Your task to perform on an android device: visit the assistant section in the google photos Image 0: 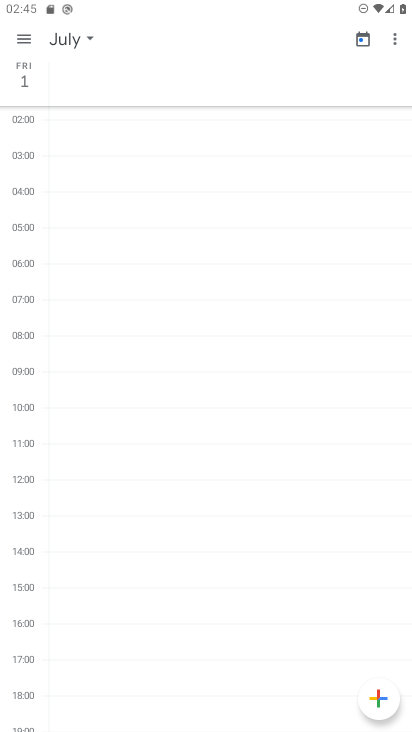
Step 0: press home button
Your task to perform on an android device: visit the assistant section in the google photos Image 1: 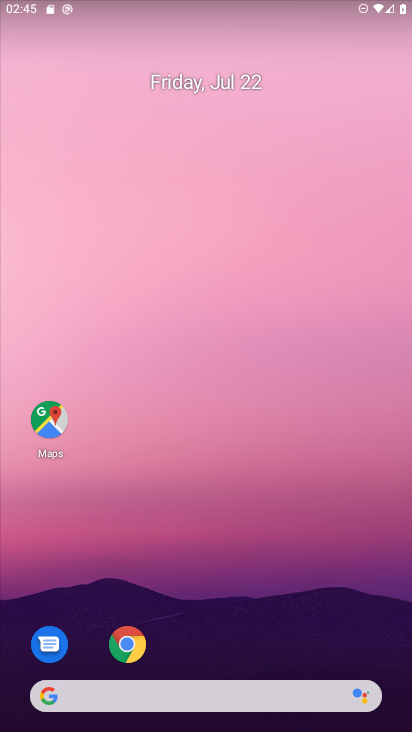
Step 1: drag from (155, 718) to (218, 116)
Your task to perform on an android device: visit the assistant section in the google photos Image 2: 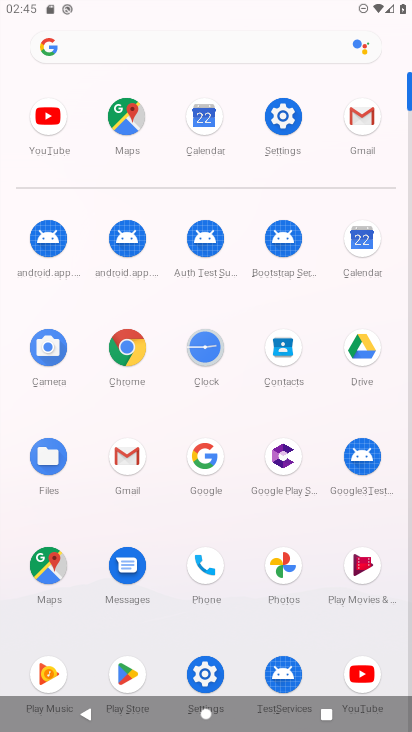
Step 2: click (283, 559)
Your task to perform on an android device: visit the assistant section in the google photos Image 3: 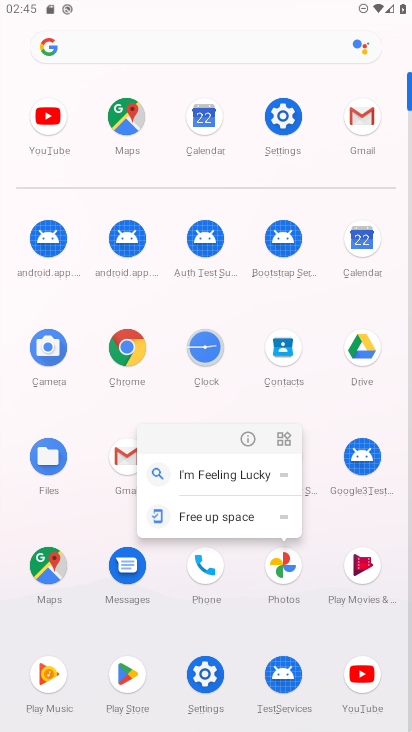
Step 3: click (285, 562)
Your task to perform on an android device: visit the assistant section in the google photos Image 4: 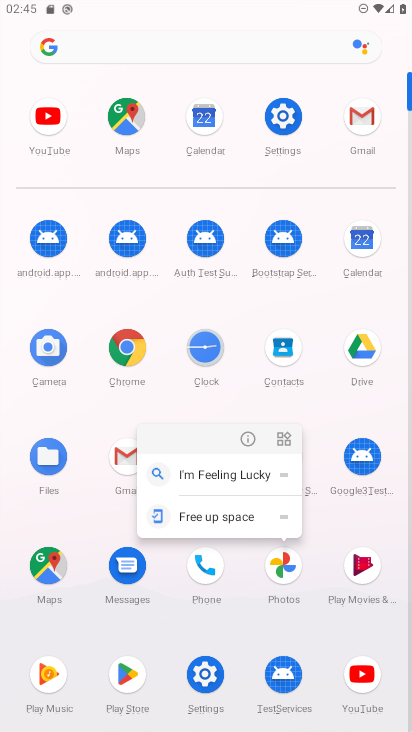
Step 4: click (285, 562)
Your task to perform on an android device: visit the assistant section in the google photos Image 5: 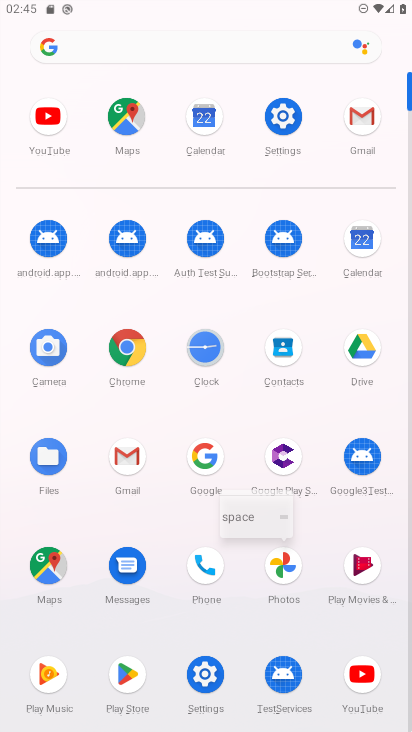
Step 5: click (285, 562)
Your task to perform on an android device: visit the assistant section in the google photos Image 6: 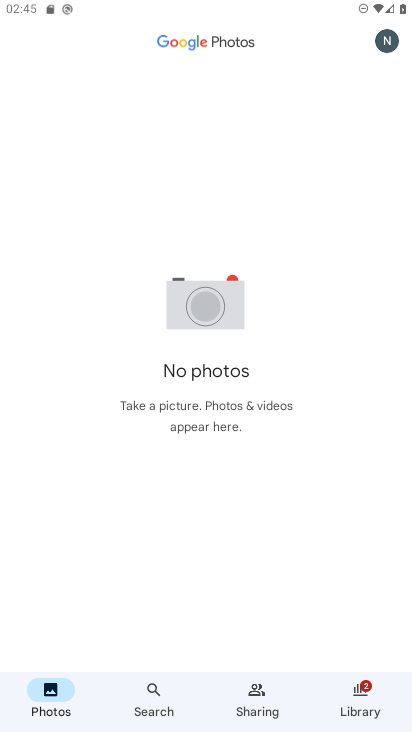
Step 6: click (380, 35)
Your task to perform on an android device: visit the assistant section in the google photos Image 7: 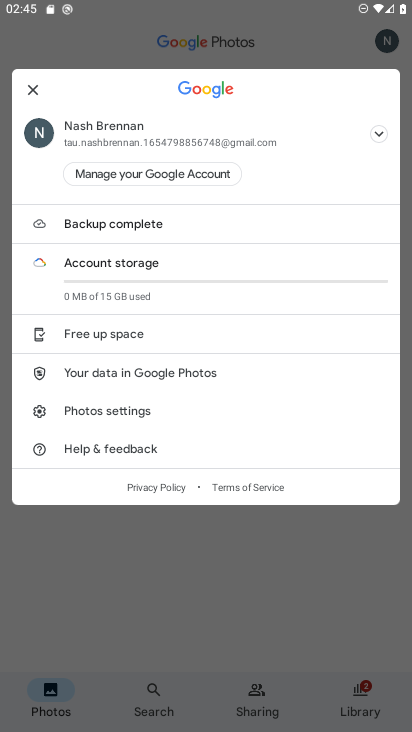
Step 7: click (146, 402)
Your task to perform on an android device: visit the assistant section in the google photos Image 8: 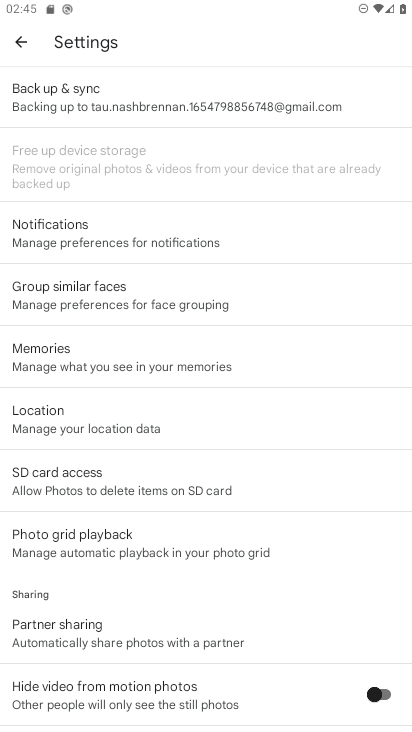
Step 8: task complete